Your task to perform on an android device: Open Wikipedia Image 0: 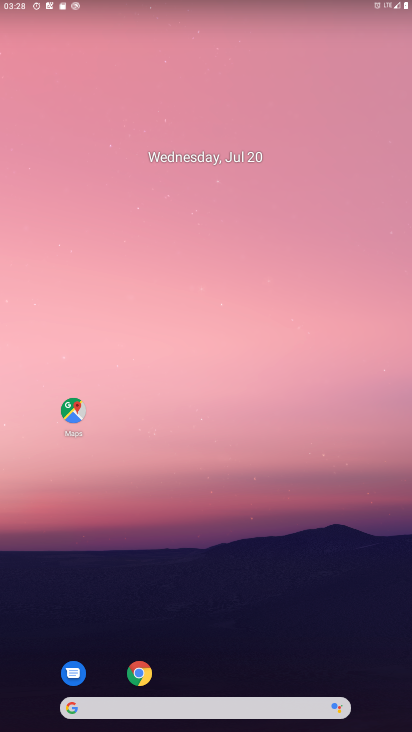
Step 0: click (142, 673)
Your task to perform on an android device: Open Wikipedia Image 1: 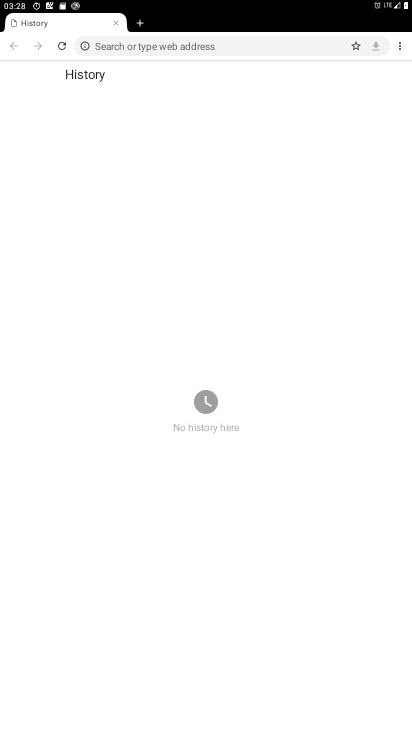
Step 1: click (207, 47)
Your task to perform on an android device: Open Wikipedia Image 2: 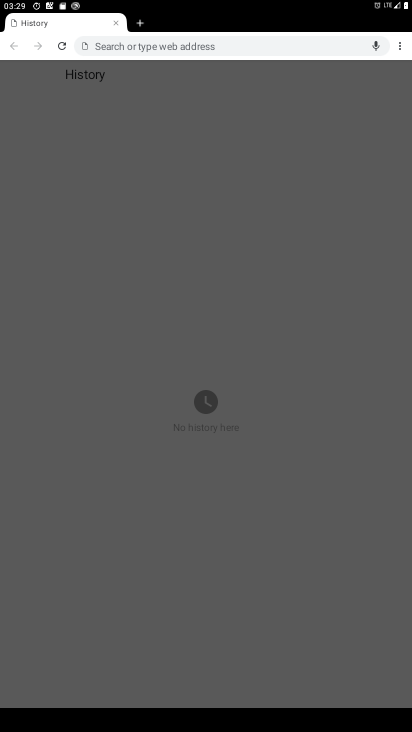
Step 2: type "wikipedia"
Your task to perform on an android device: Open Wikipedia Image 3: 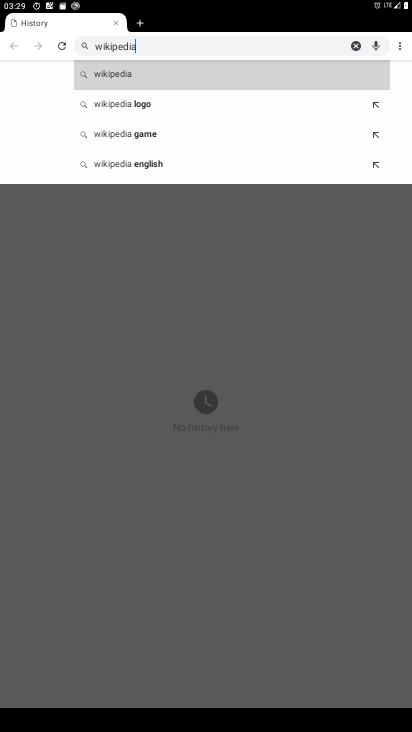
Step 3: click (136, 78)
Your task to perform on an android device: Open Wikipedia Image 4: 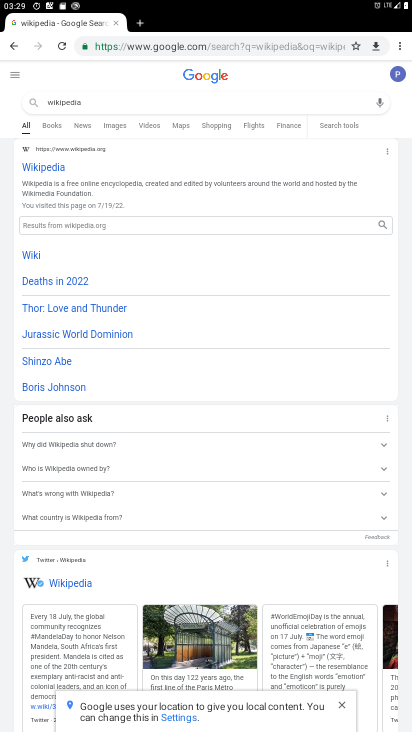
Step 4: task complete